Your task to perform on an android device: Open ESPN.com Image 0: 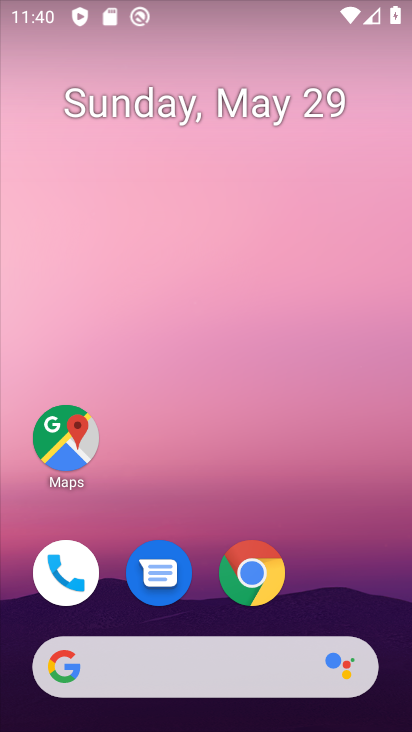
Step 0: click (217, 671)
Your task to perform on an android device: Open ESPN.com Image 1: 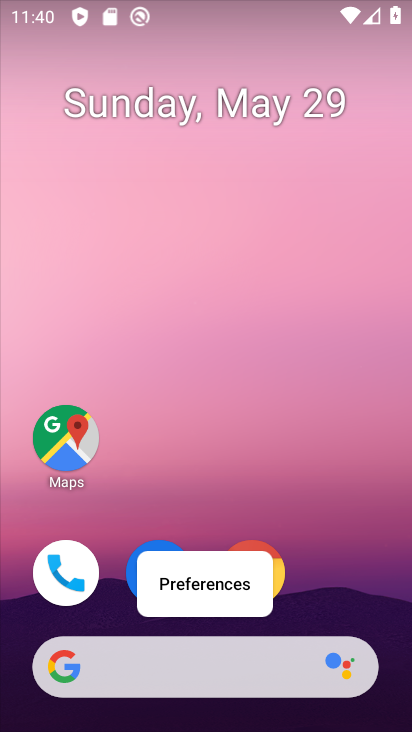
Step 1: click (231, 676)
Your task to perform on an android device: Open ESPN.com Image 2: 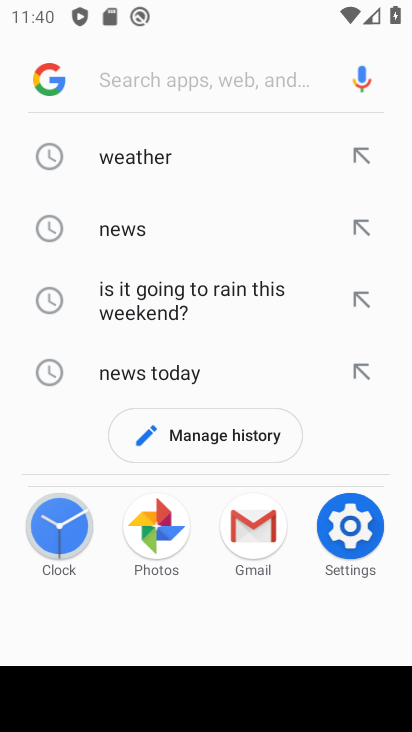
Step 2: type "ESPN.com"
Your task to perform on an android device: Open ESPN.com Image 3: 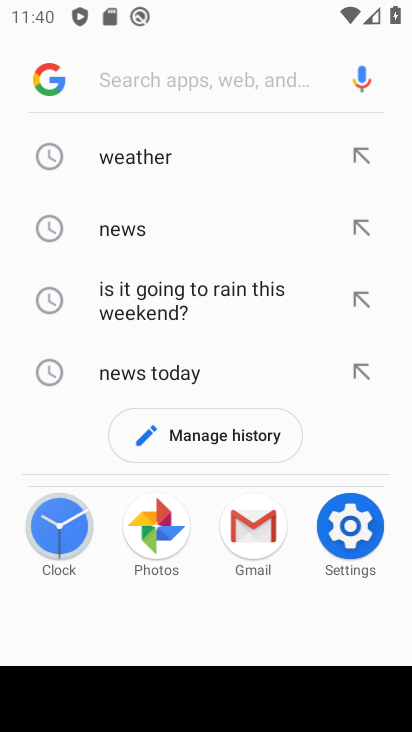
Step 3: click (188, 84)
Your task to perform on an android device: Open ESPN.com Image 4: 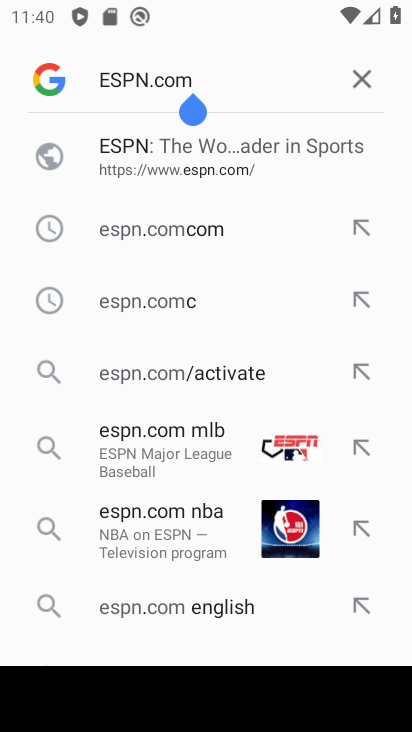
Step 4: click (165, 152)
Your task to perform on an android device: Open ESPN.com Image 5: 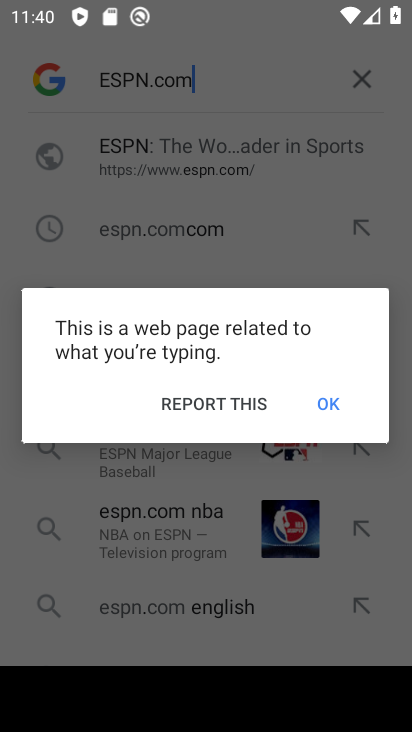
Step 5: click (320, 411)
Your task to perform on an android device: Open ESPN.com Image 6: 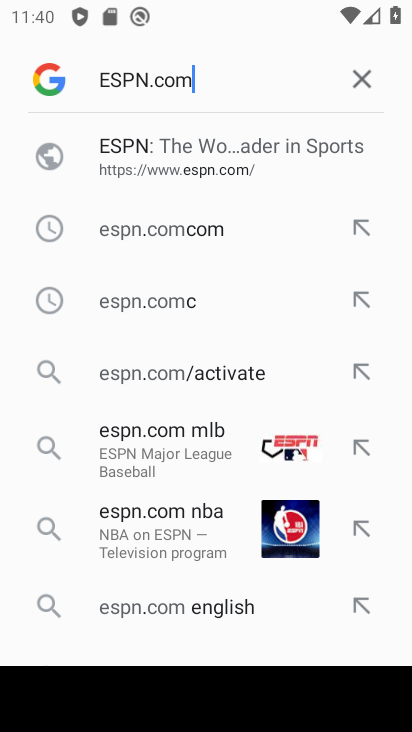
Step 6: click (228, 76)
Your task to perform on an android device: Open ESPN.com Image 7: 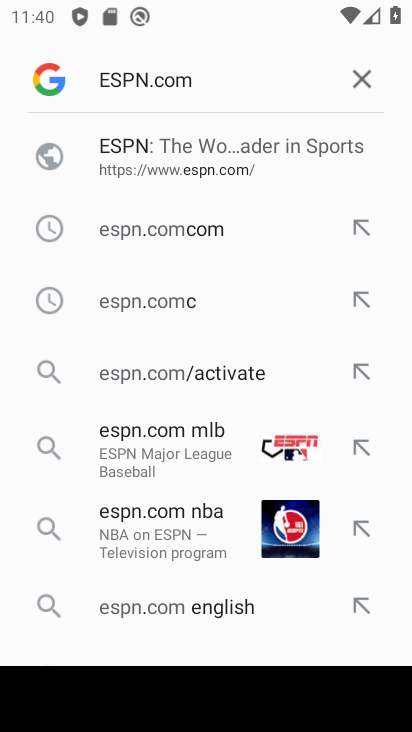
Step 7: click (165, 172)
Your task to perform on an android device: Open ESPN.com Image 8: 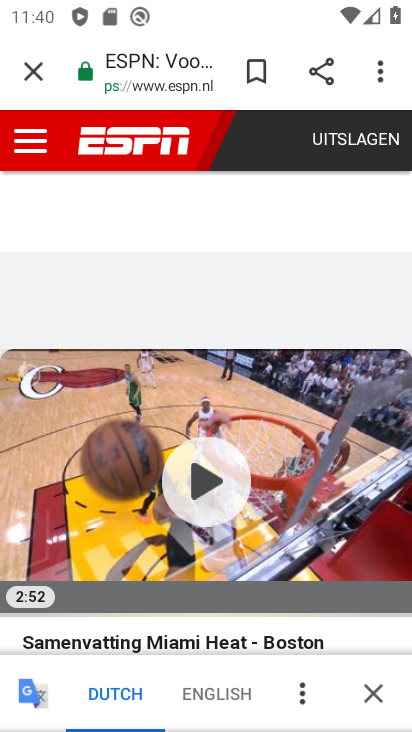
Step 8: task complete